Your task to perform on an android device: Open privacy settings Image 0: 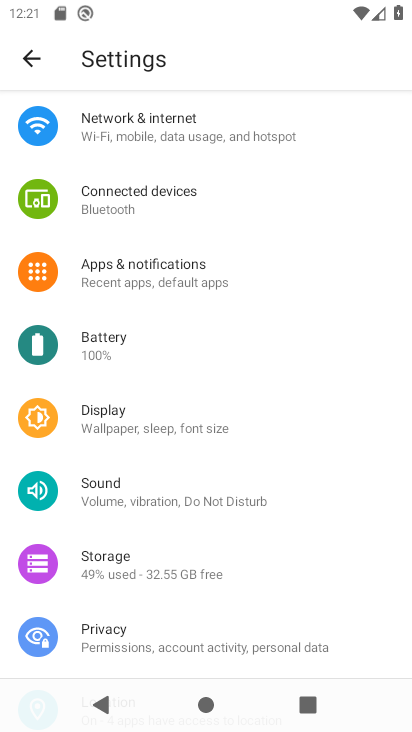
Step 0: click (190, 634)
Your task to perform on an android device: Open privacy settings Image 1: 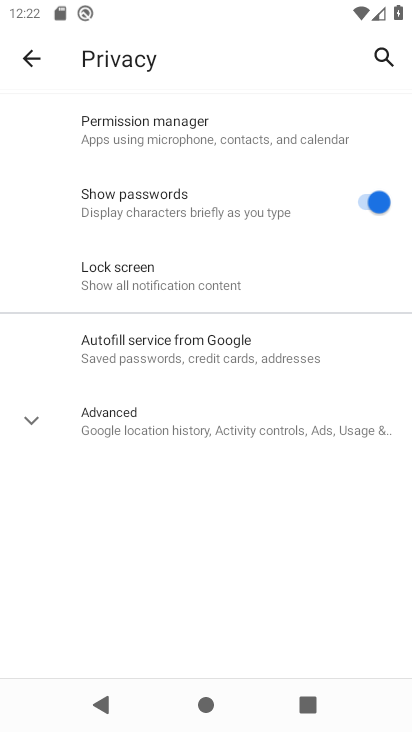
Step 1: task complete